Your task to perform on an android device: Go to notification settings Image 0: 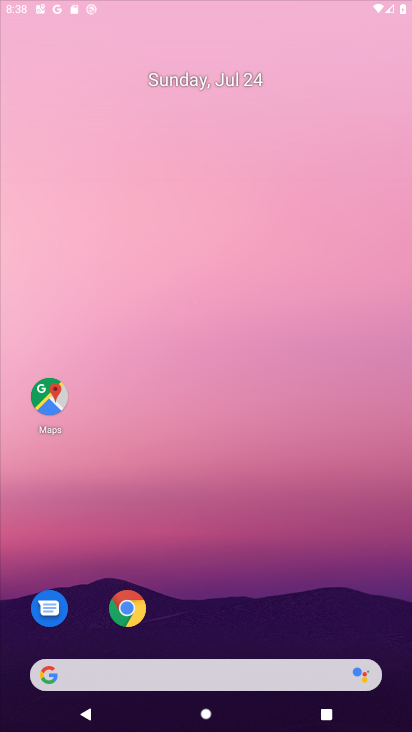
Step 0: click (74, 677)
Your task to perform on an android device: Go to notification settings Image 1: 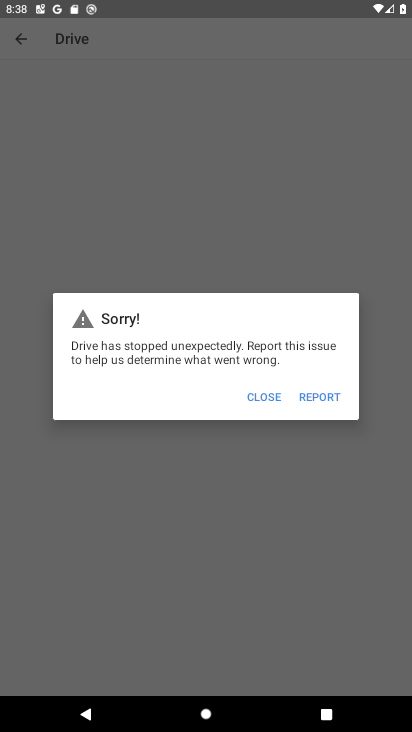
Step 1: press home button
Your task to perform on an android device: Go to notification settings Image 2: 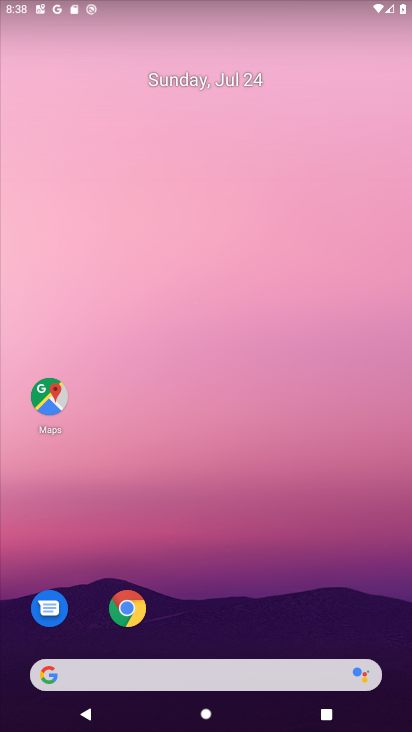
Step 2: drag from (224, 619) to (293, 0)
Your task to perform on an android device: Go to notification settings Image 3: 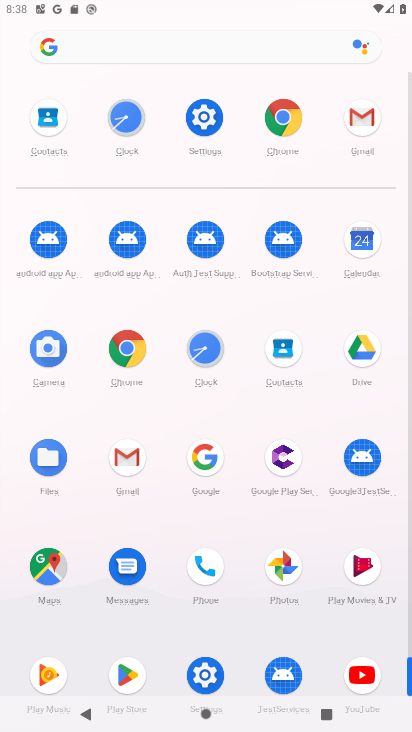
Step 3: click (192, 137)
Your task to perform on an android device: Go to notification settings Image 4: 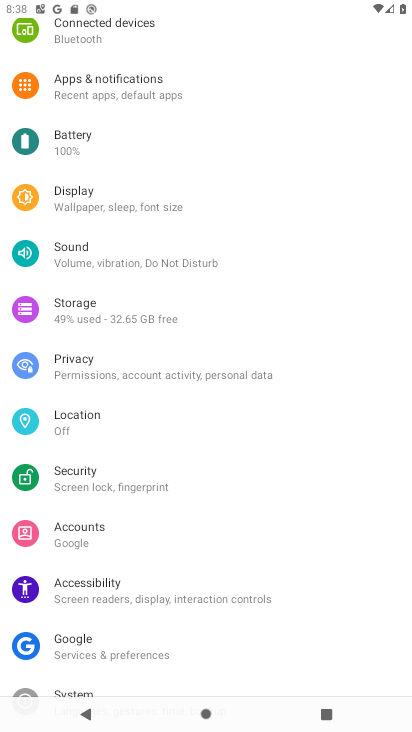
Step 4: click (125, 67)
Your task to perform on an android device: Go to notification settings Image 5: 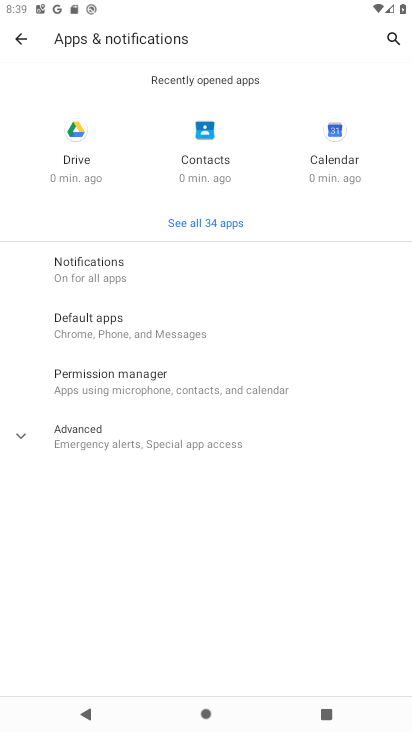
Step 5: task complete